Your task to perform on an android device: Open network settings Image 0: 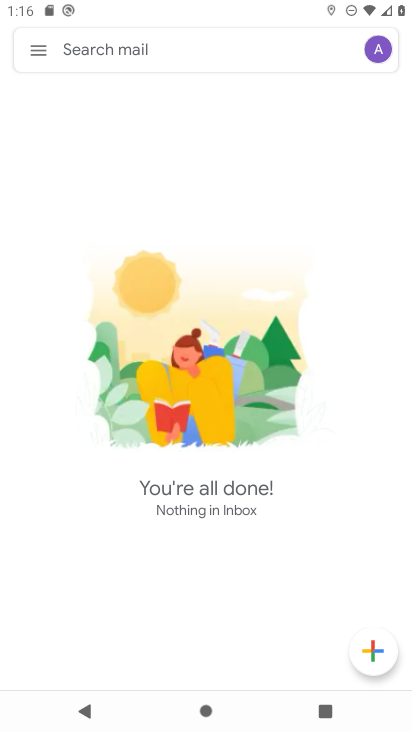
Step 0: press home button
Your task to perform on an android device: Open network settings Image 1: 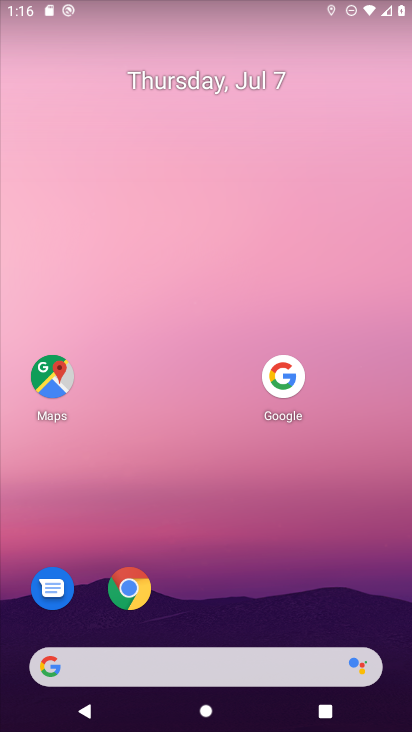
Step 1: drag from (182, 657) to (398, 10)
Your task to perform on an android device: Open network settings Image 2: 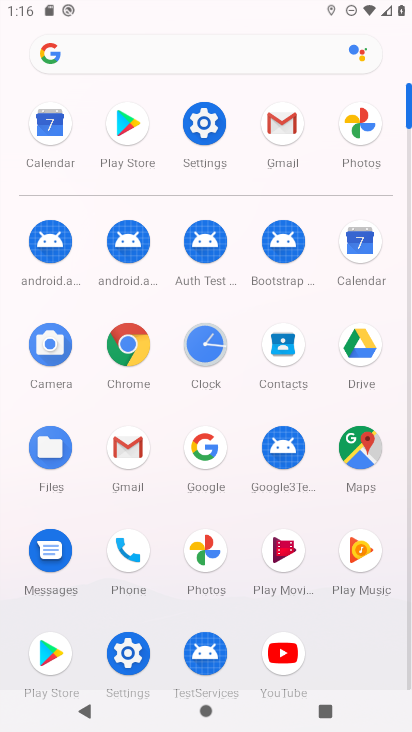
Step 2: click (210, 123)
Your task to perform on an android device: Open network settings Image 3: 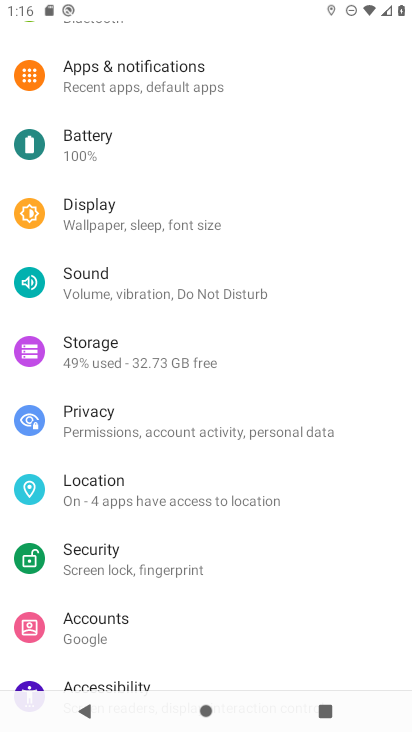
Step 3: drag from (272, 66) to (157, 346)
Your task to perform on an android device: Open network settings Image 4: 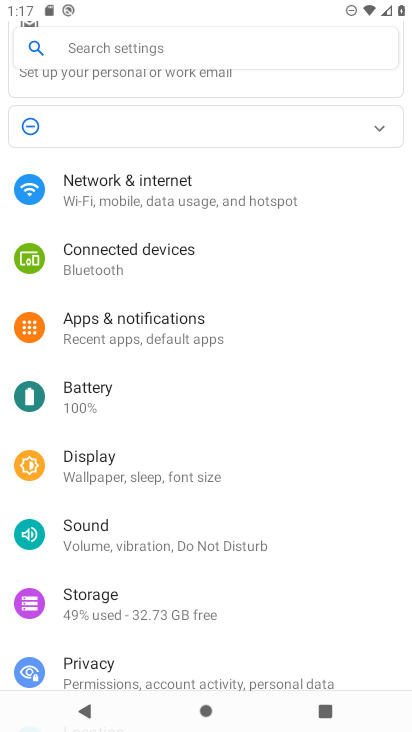
Step 4: click (138, 187)
Your task to perform on an android device: Open network settings Image 5: 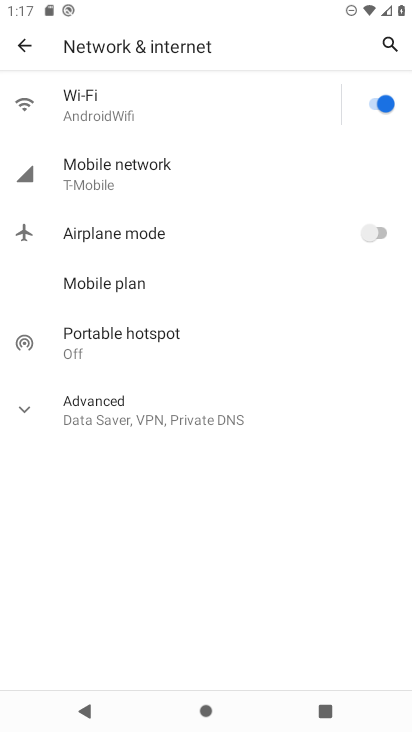
Step 5: click (148, 174)
Your task to perform on an android device: Open network settings Image 6: 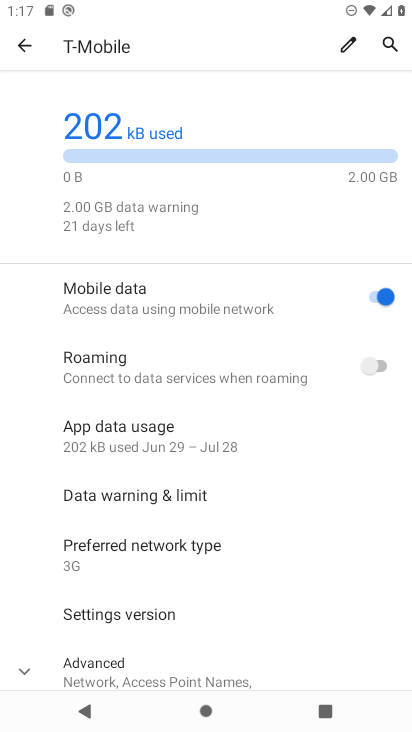
Step 6: task complete